Your task to perform on an android device: Check the weather Image 0: 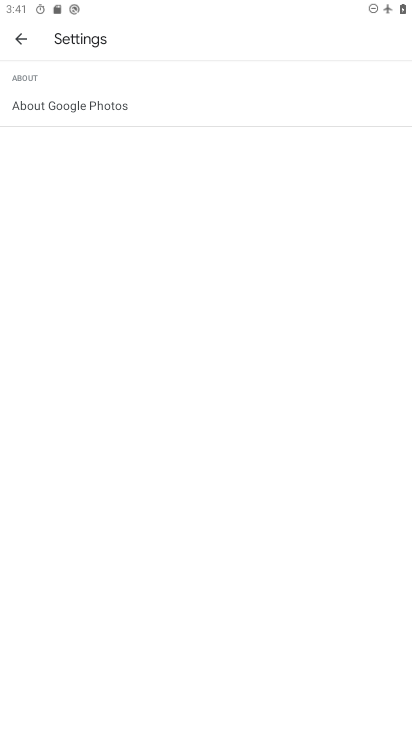
Step 0: press home button
Your task to perform on an android device: Check the weather Image 1: 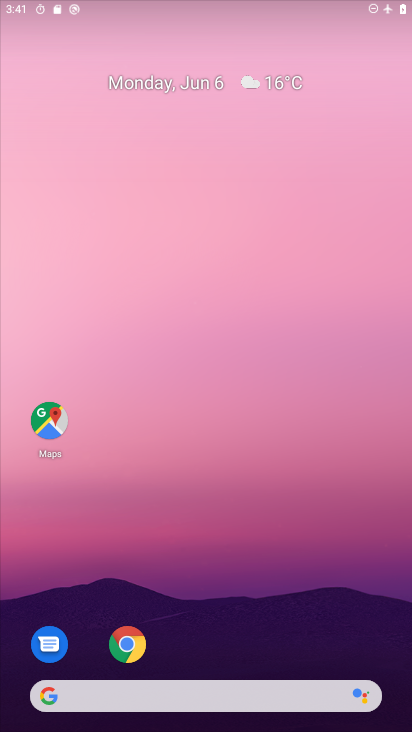
Step 1: drag from (174, 379) to (181, 138)
Your task to perform on an android device: Check the weather Image 2: 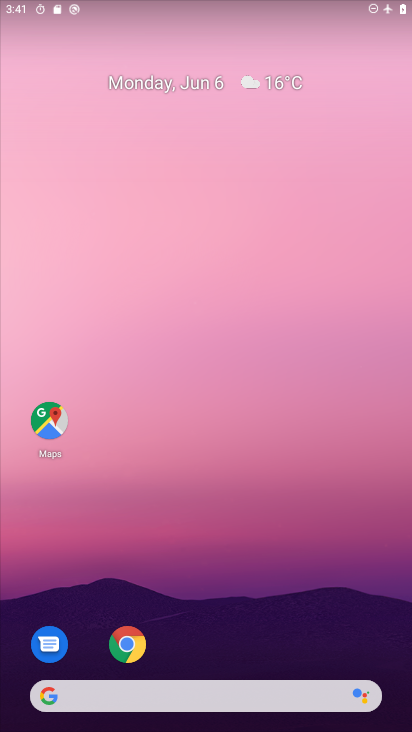
Step 2: drag from (210, 624) to (182, 129)
Your task to perform on an android device: Check the weather Image 3: 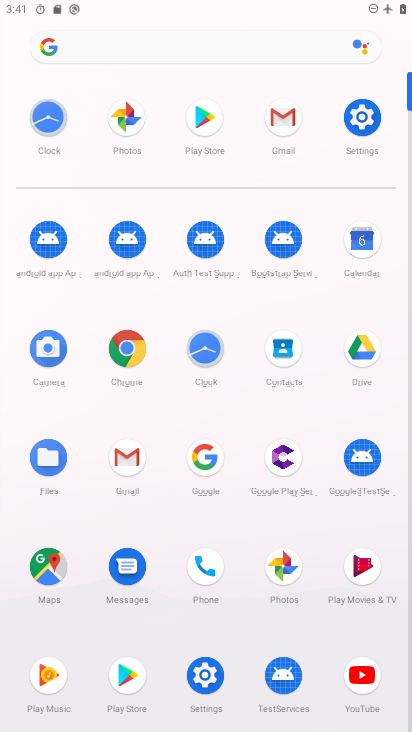
Step 3: click (205, 458)
Your task to perform on an android device: Check the weather Image 4: 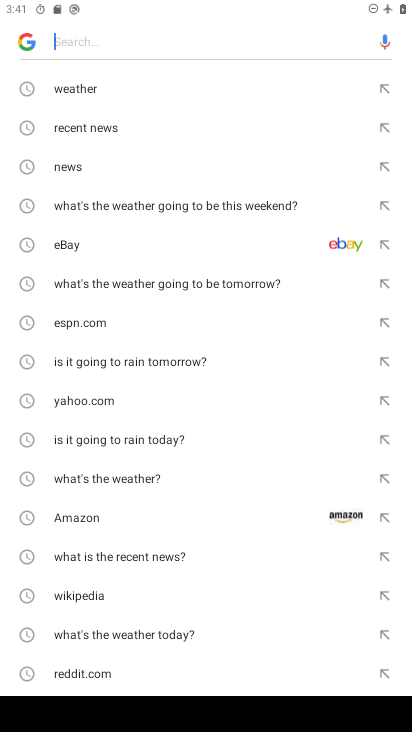
Step 4: click (81, 91)
Your task to perform on an android device: Check the weather Image 5: 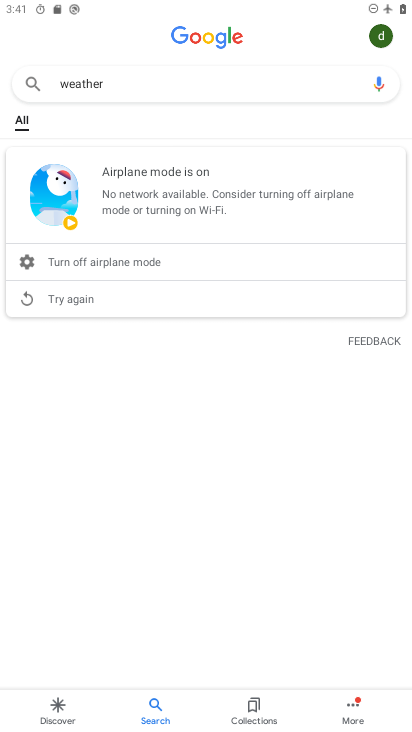
Step 5: task complete